Your task to perform on an android device: change the upload size in google photos Image 0: 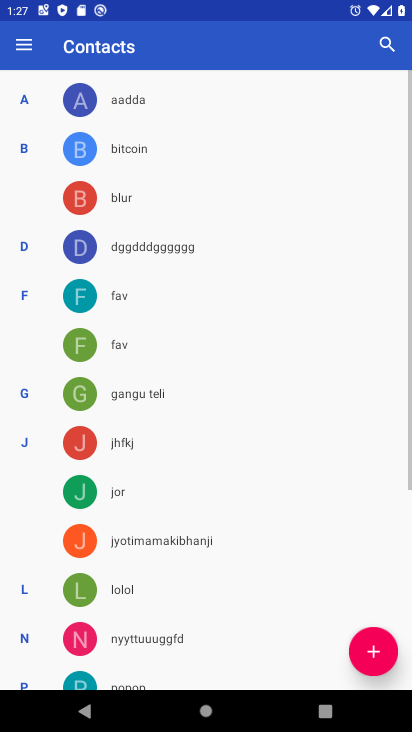
Step 0: press home button
Your task to perform on an android device: change the upload size in google photos Image 1: 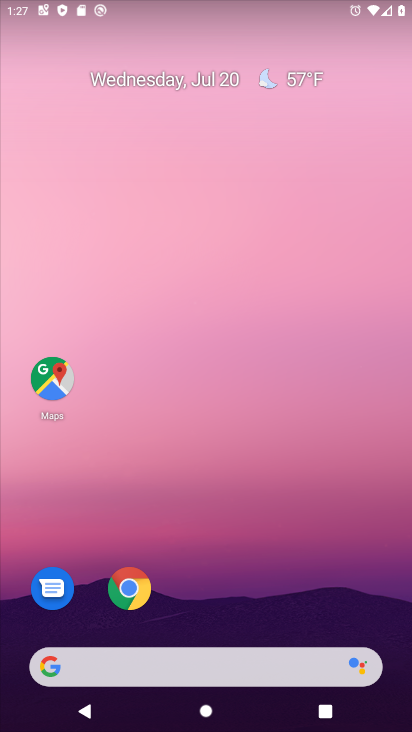
Step 1: drag from (15, 565) to (204, 59)
Your task to perform on an android device: change the upload size in google photos Image 2: 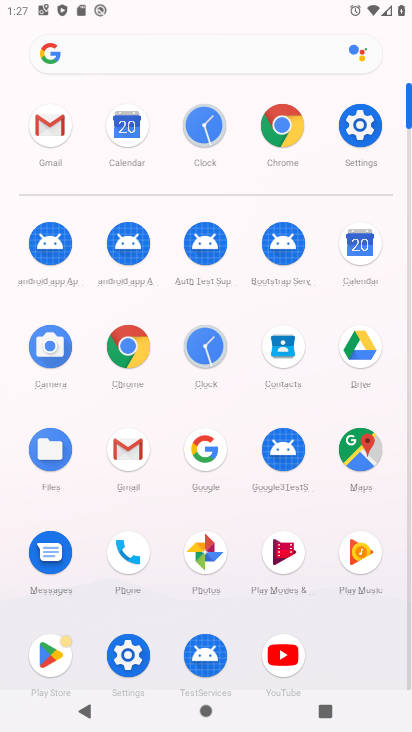
Step 2: click (197, 561)
Your task to perform on an android device: change the upload size in google photos Image 3: 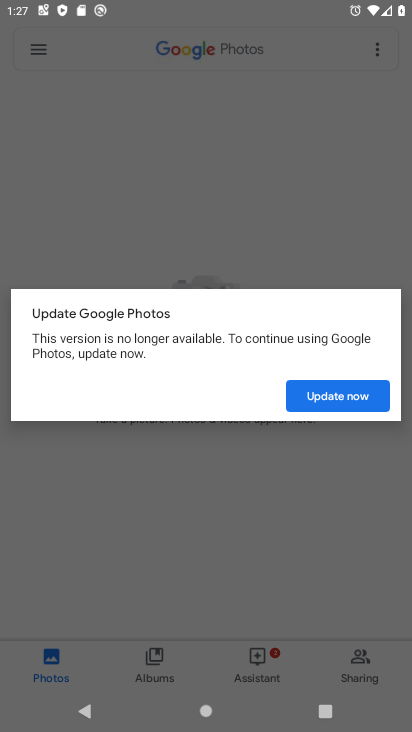
Step 3: click (300, 399)
Your task to perform on an android device: change the upload size in google photos Image 4: 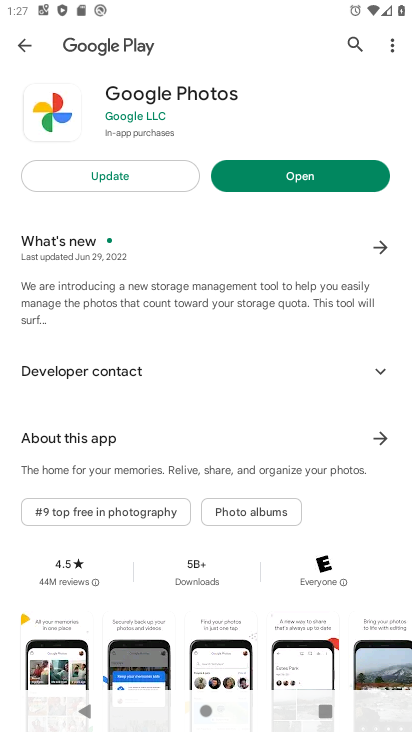
Step 4: click (296, 178)
Your task to perform on an android device: change the upload size in google photos Image 5: 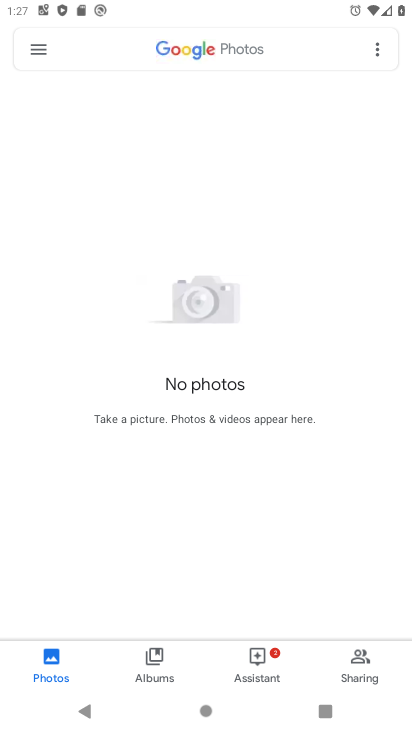
Step 5: click (34, 47)
Your task to perform on an android device: change the upload size in google photos Image 6: 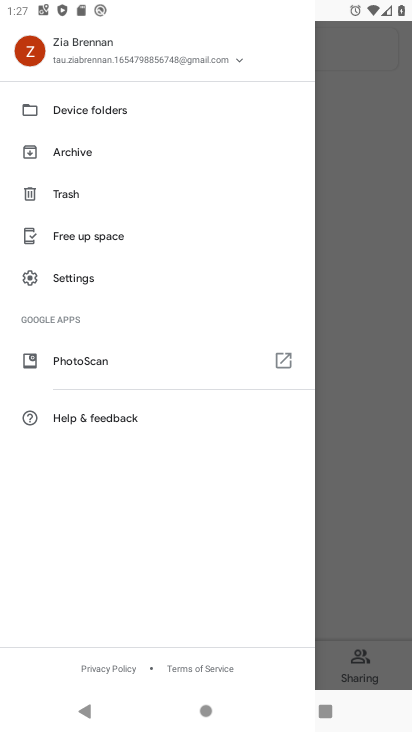
Step 6: click (64, 275)
Your task to perform on an android device: change the upload size in google photos Image 7: 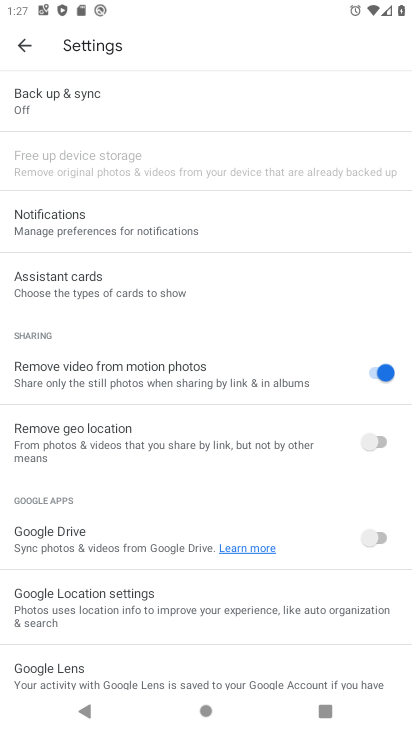
Step 7: click (162, 97)
Your task to perform on an android device: change the upload size in google photos Image 8: 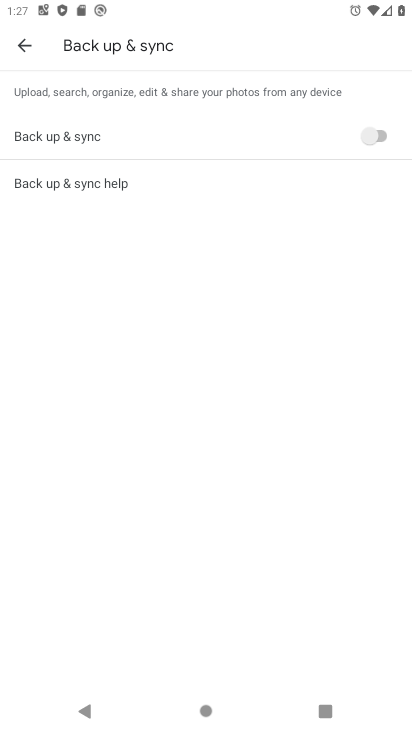
Step 8: click (79, 137)
Your task to perform on an android device: change the upload size in google photos Image 9: 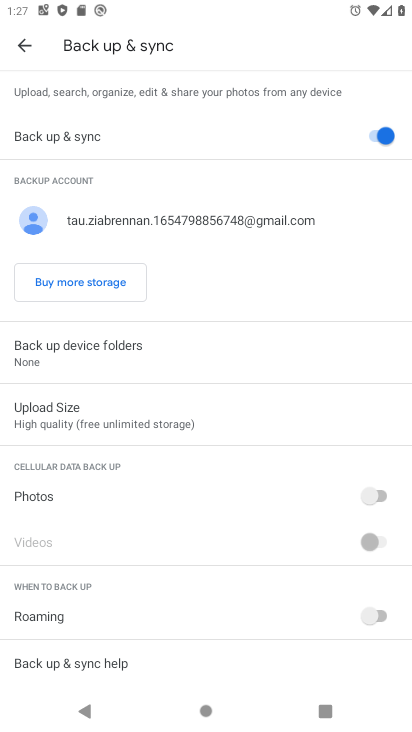
Step 9: click (103, 413)
Your task to perform on an android device: change the upload size in google photos Image 10: 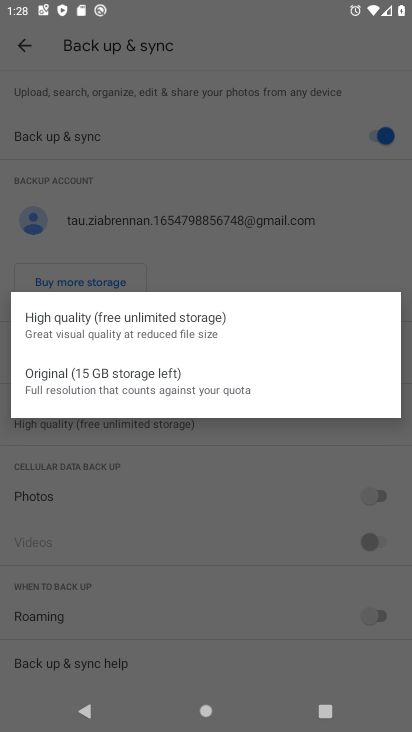
Step 10: click (132, 395)
Your task to perform on an android device: change the upload size in google photos Image 11: 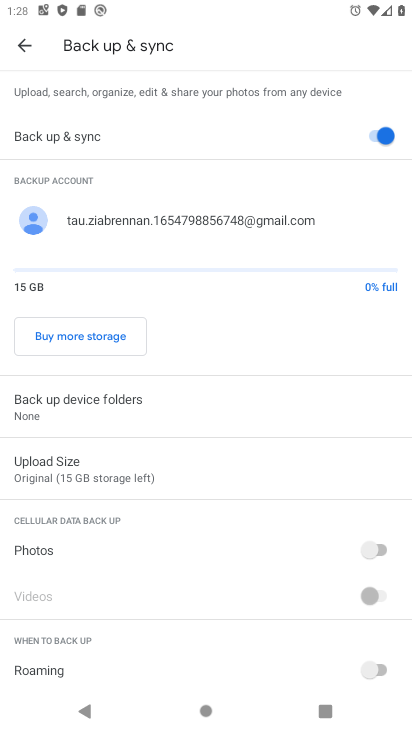
Step 11: task complete